Your task to perform on an android device: Open Chrome and go to the settings page Image 0: 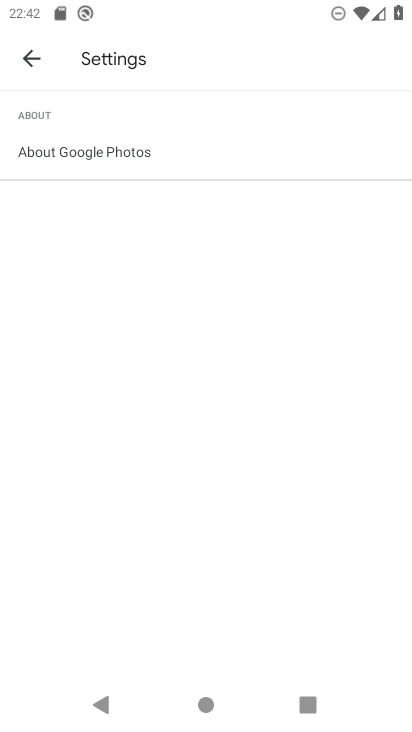
Step 0: click (15, 57)
Your task to perform on an android device: Open Chrome and go to the settings page Image 1: 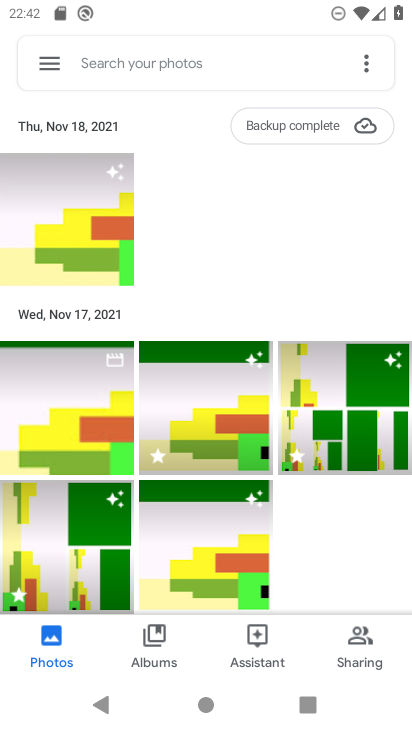
Step 1: press home button
Your task to perform on an android device: Open Chrome and go to the settings page Image 2: 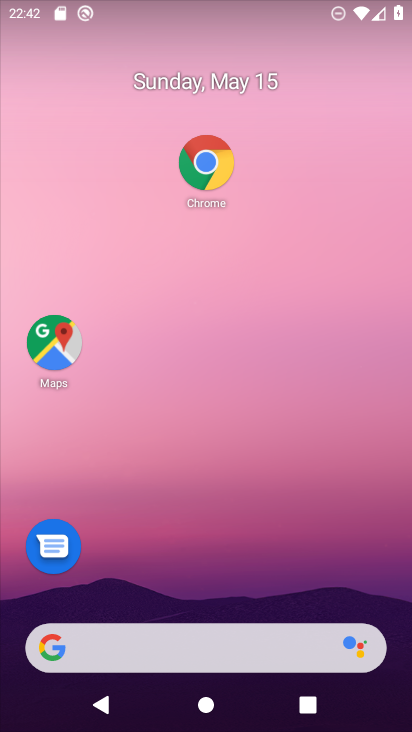
Step 2: click (211, 147)
Your task to perform on an android device: Open Chrome and go to the settings page Image 3: 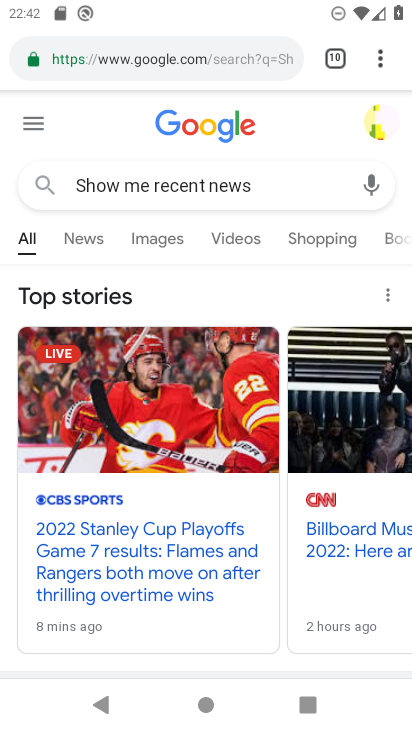
Step 3: click (370, 56)
Your task to perform on an android device: Open Chrome and go to the settings page Image 4: 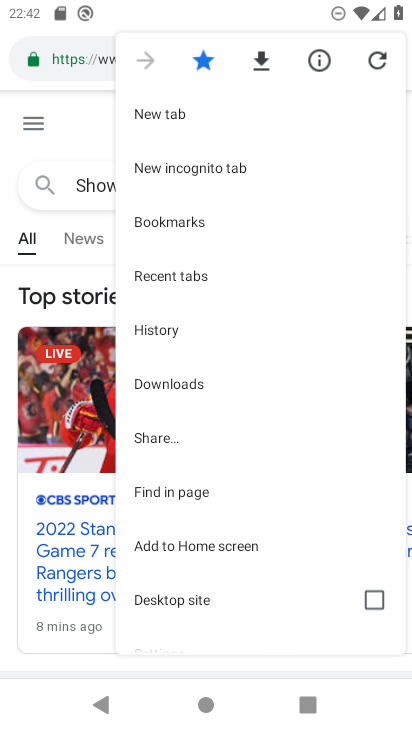
Step 4: drag from (194, 589) to (247, 307)
Your task to perform on an android device: Open Chrome and go to the settings page Image 5: 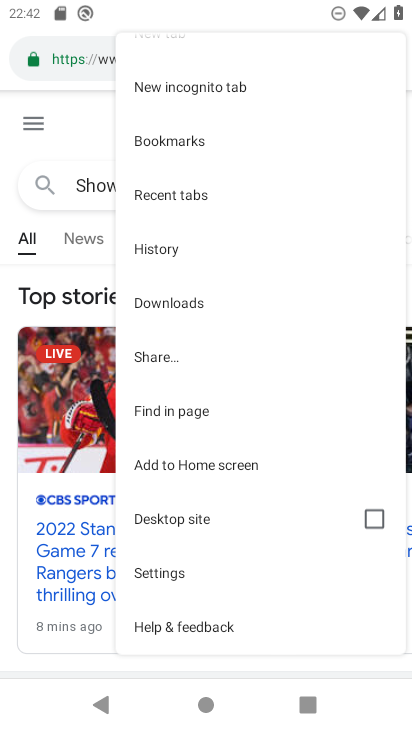
Step 5: click (172, 567)
Your task to perform on an android device: Open Chrome and go to the settings page Image 6: 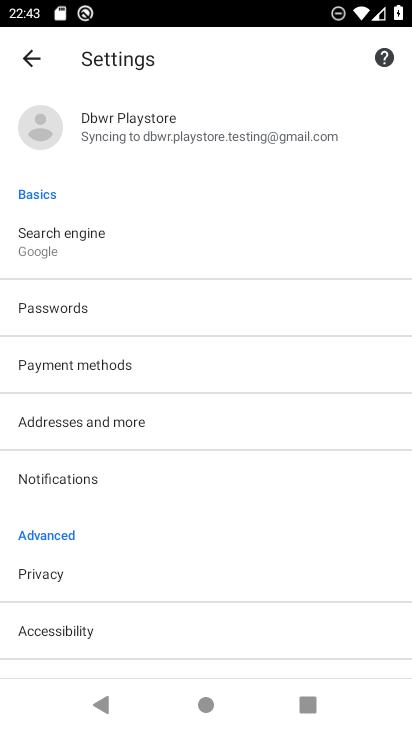
Step 6: task complete